Your task to perform on an android device: check battery use Image 0: 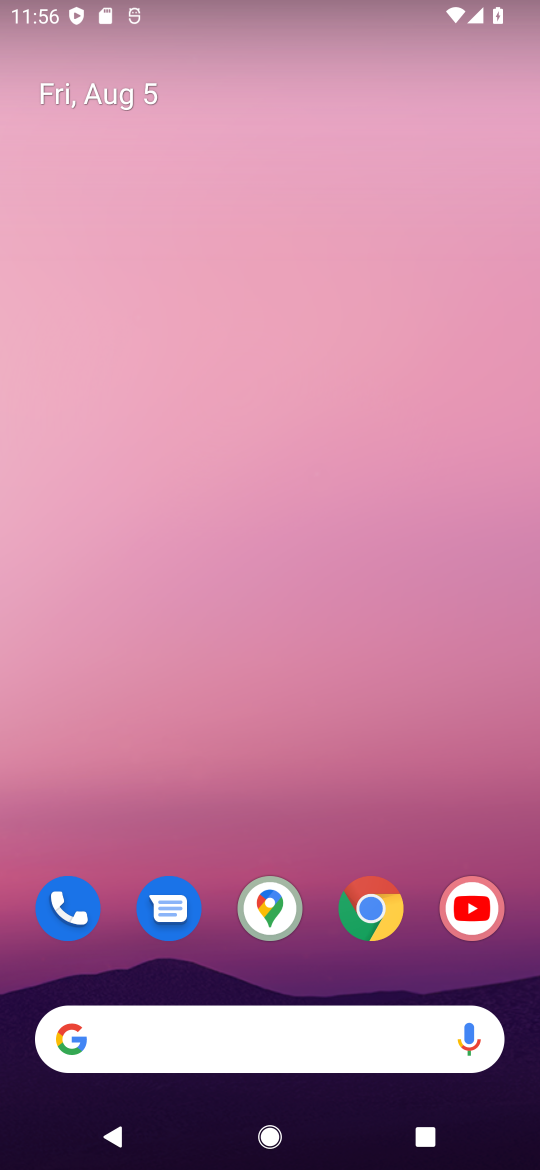
Step 0: drag from (314, 972) to (326, 275)
Your task to perform on an android device: check battery use Image 1: 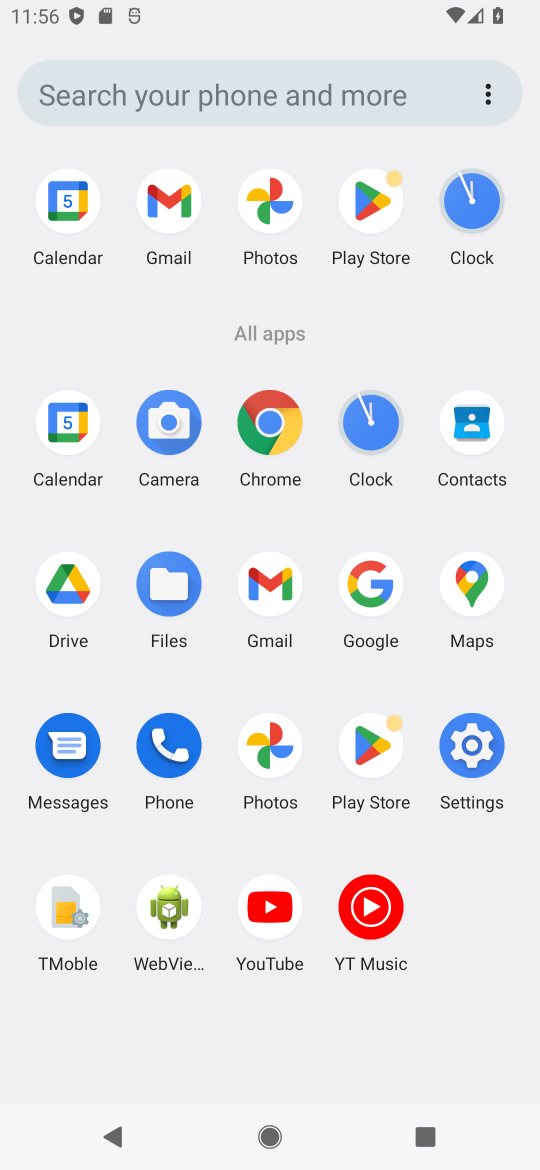
Step 1: click (480, 746)
Your task to perform on an android device: check battery use Image 2: 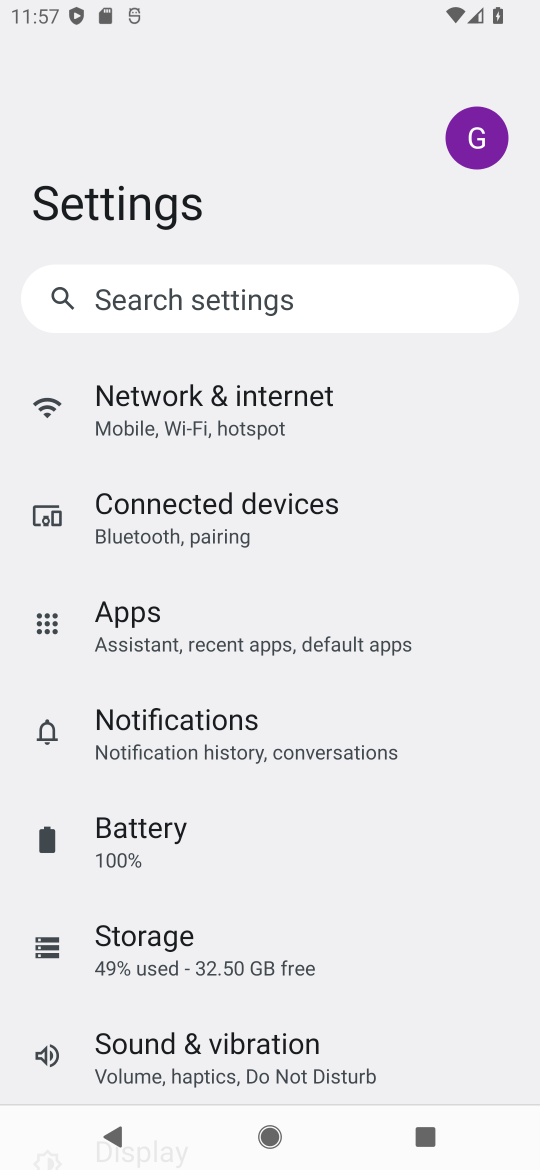
Step 2: drag from (314, 889) to (264, 177)
Your task to perform on an android device: check battery use Image 3: 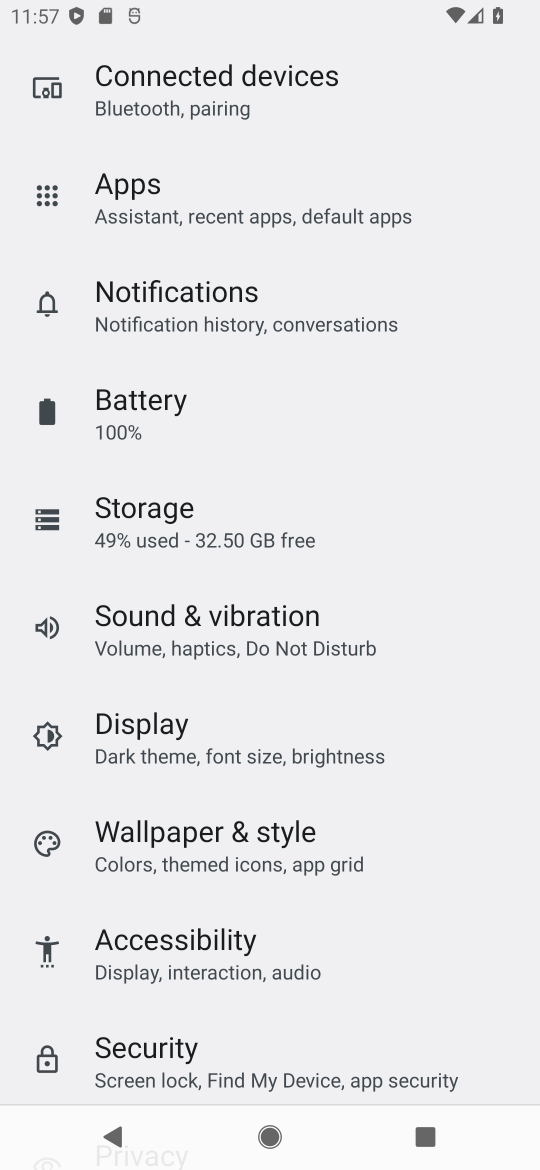
Step 3: click (178, 421)
Your task to perform on an android device: check battery use Image 4: 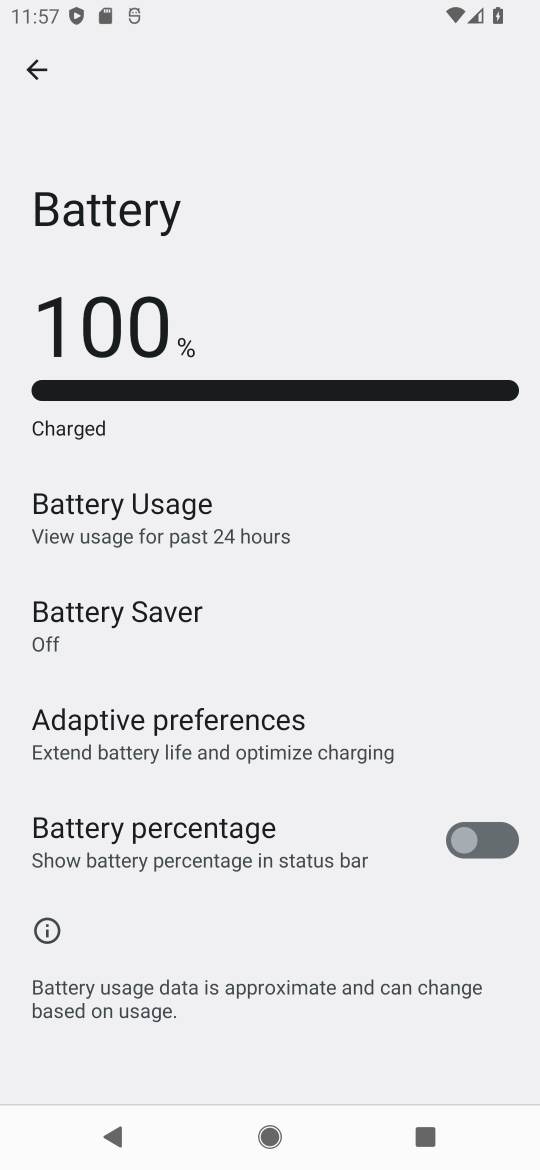
Step 4: task complete